Your task to perform on an android device: open app "ZOOM Cloud Meetings" (install if not already installed) Image 0: 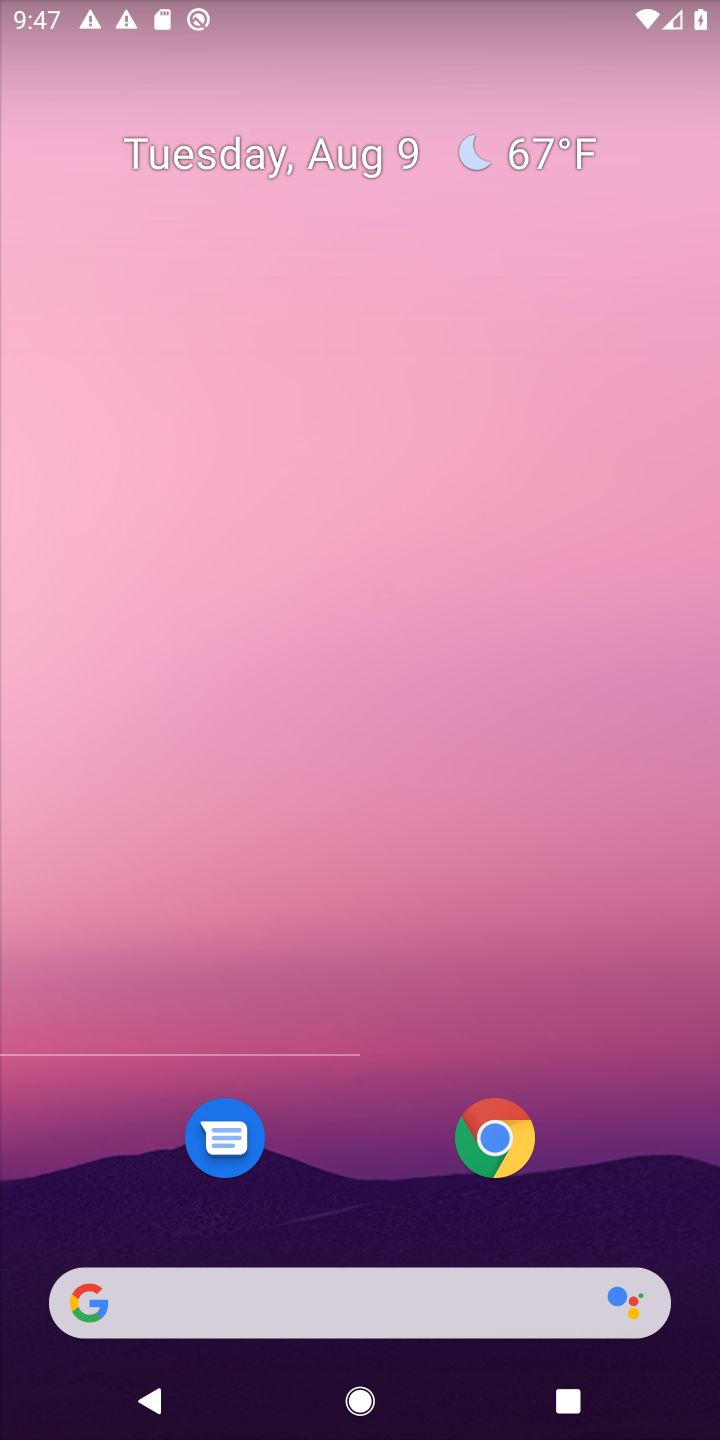
Step 0: press home button
Your task to perform on an android device: open app "ZOOM Cloud Meetings" (install if not already installed) Image 1: 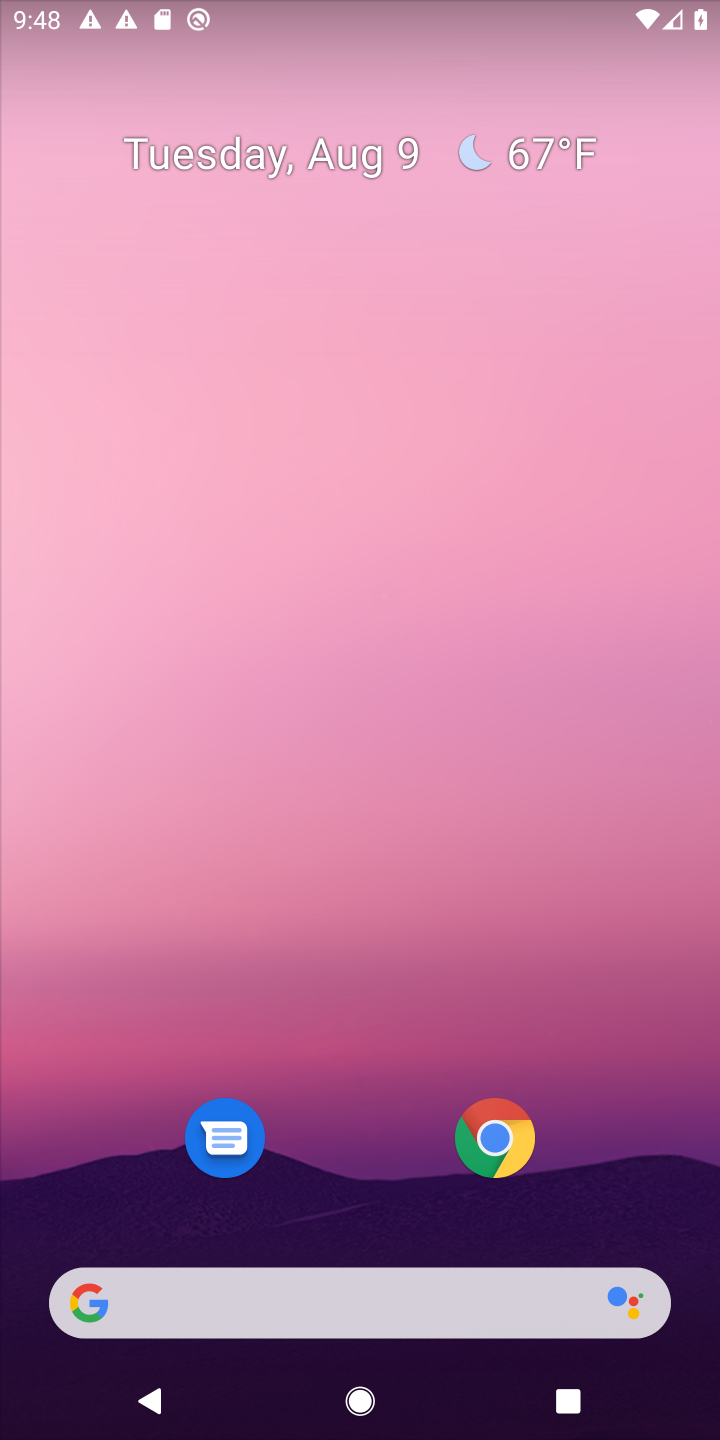
Step 1: drag from (339, 1242) to (397, 168)
Your task to perform on an android device: open app "ZOOM Cloud Meetings" (install if not already installed) Image 2: 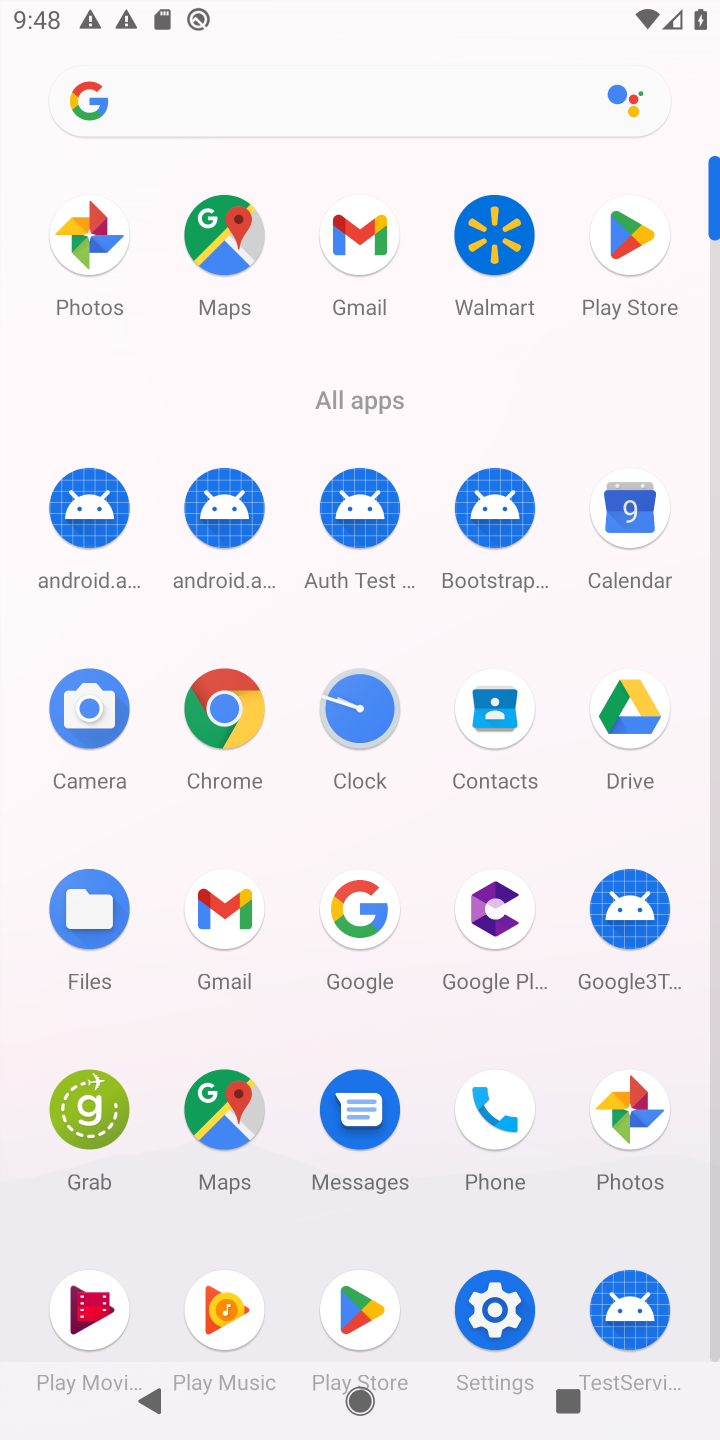
Step 2: click (629, 226)
Your task to perform on an android device: open app "ZOOM Cloud Meetings" (install if not already installed) Image 3: 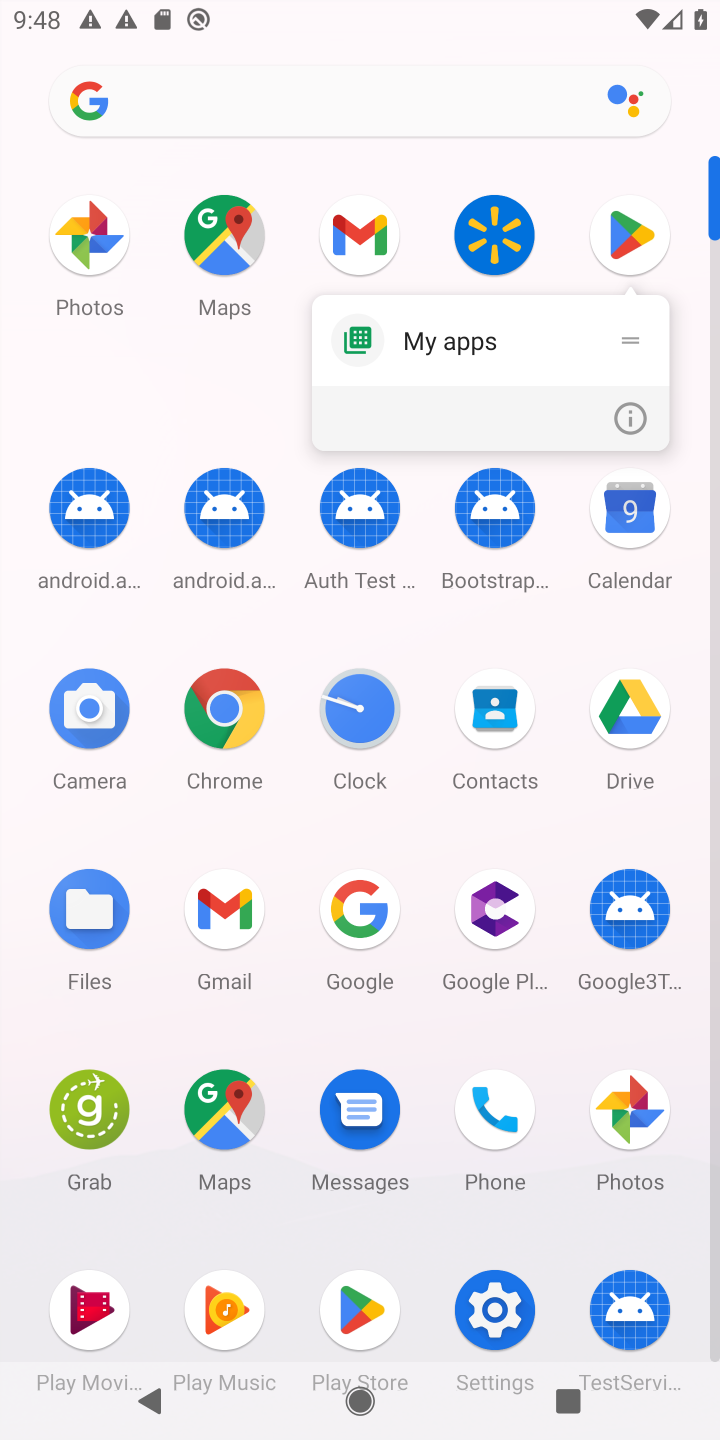
Step 3: click (630, 231)
Your task to perform on an android device: open app "ZOOM Cloud Meetings" (install if not already installed) Image 4: 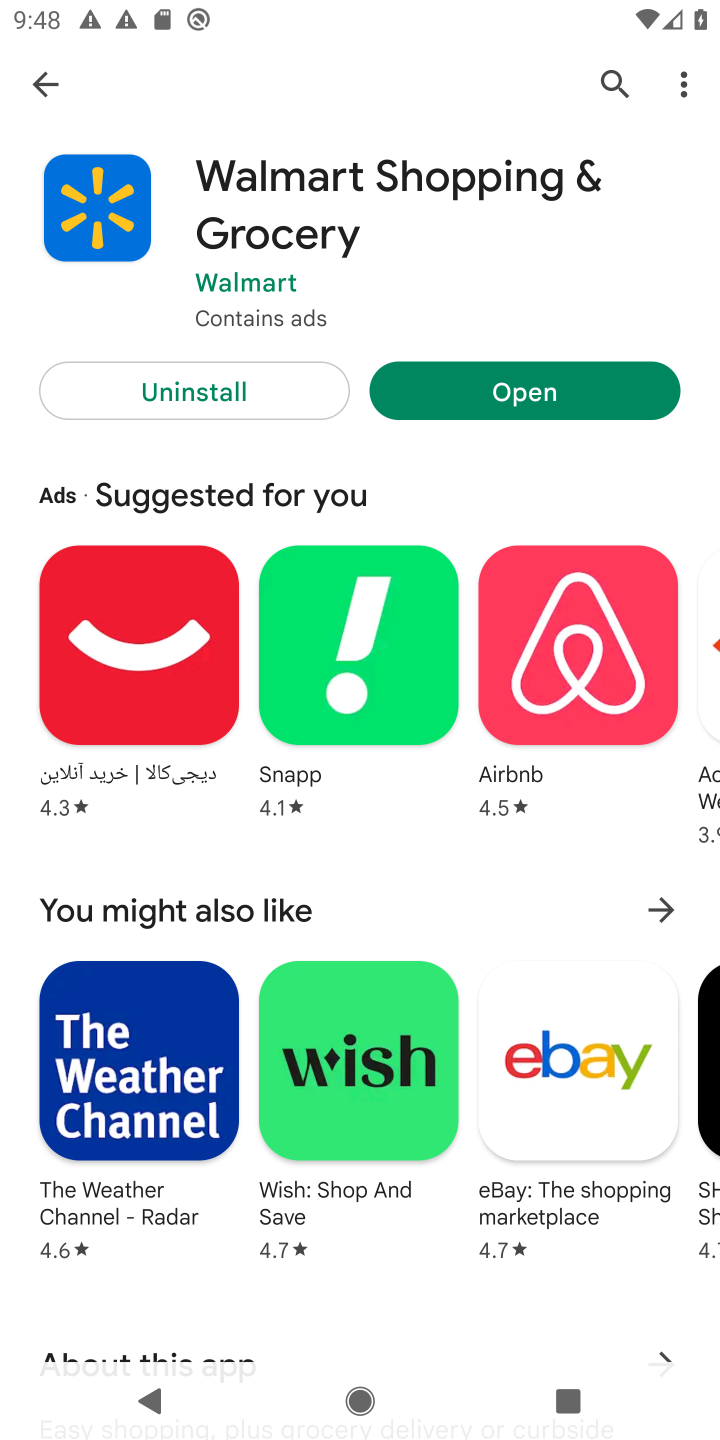
Step 4: click (591, 84)
Your task to perform on an android device: open app "ZOOM Cloud Meetings" (install if not already installed) Image 5: 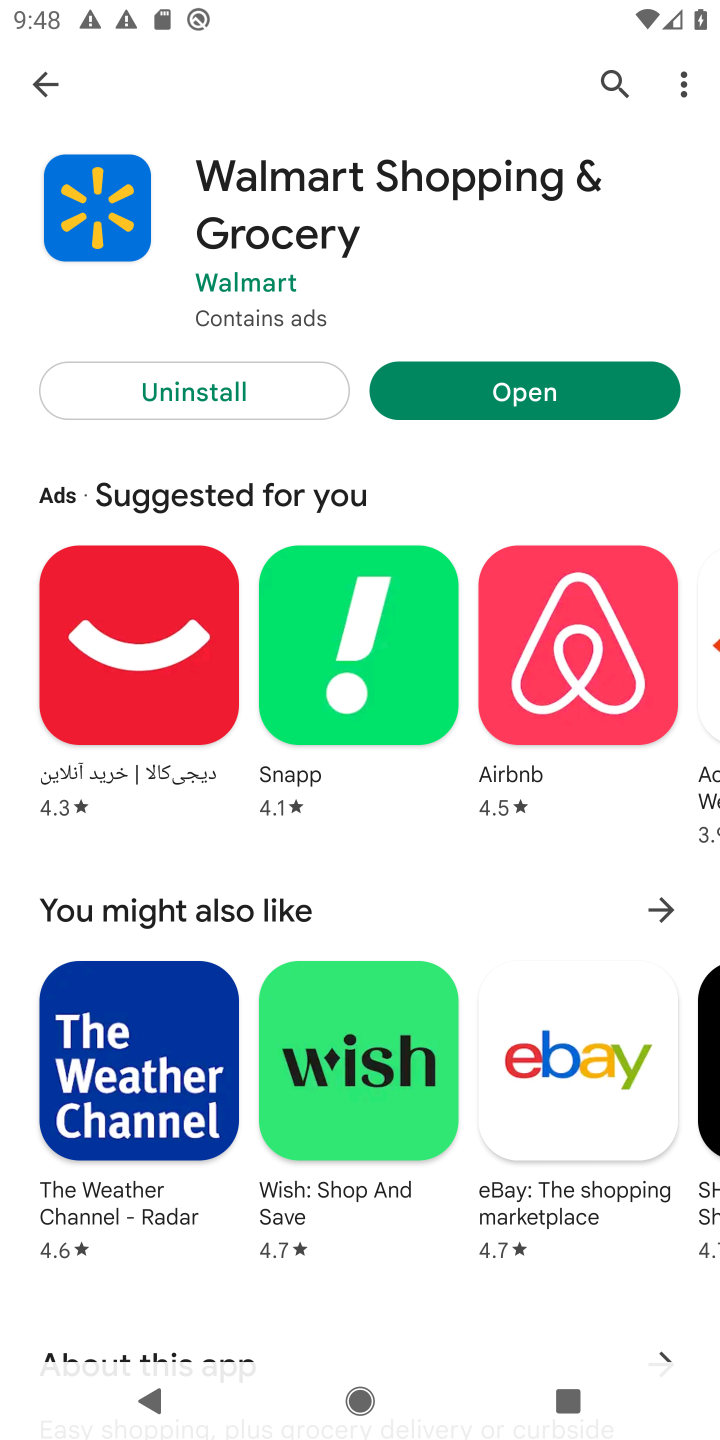
Step 5: click (602, 80)
Your task to perform on an android device: open app "ZOOM Cloud Meetings" (install if not already installed) Image 6: 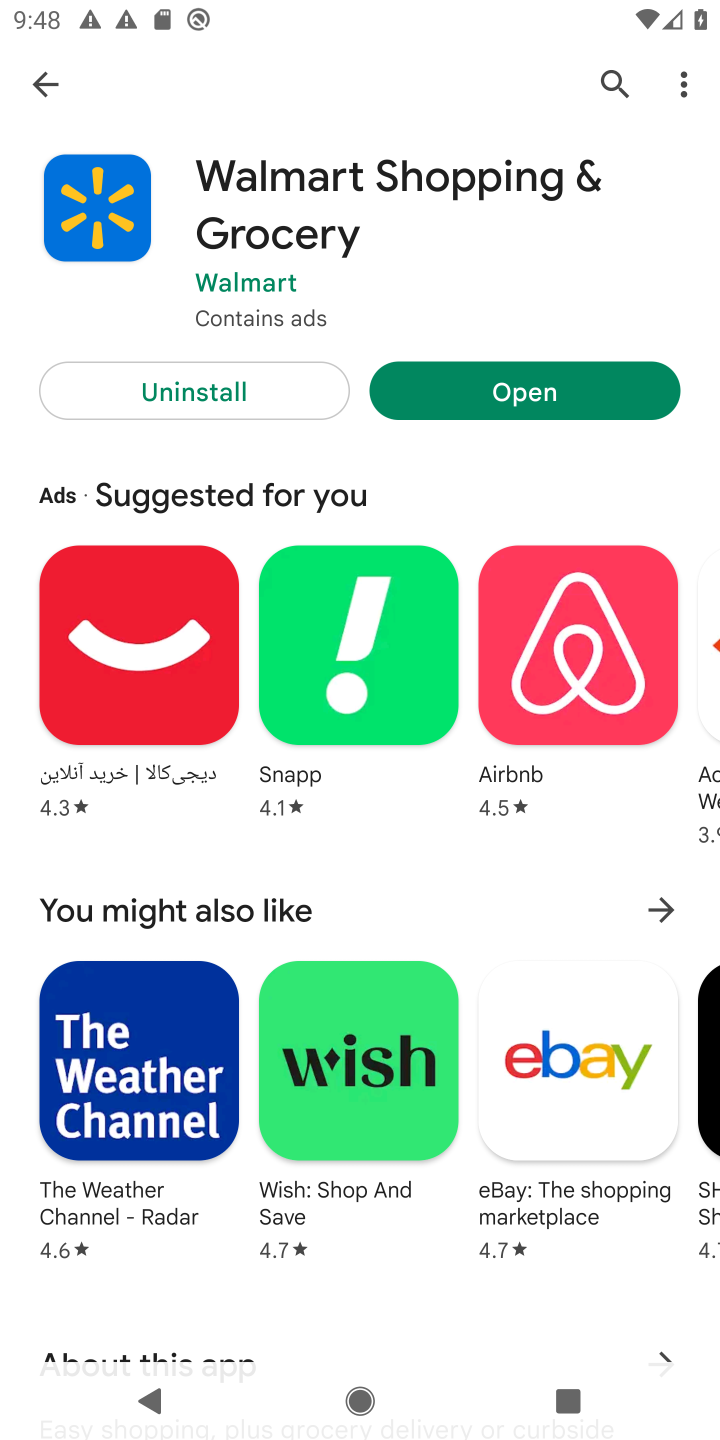
Step 6: click (614, 82)
Your task to perform on an android device: open app "ZOOM Cloud Meetings" (install if not already installed) Image 7: 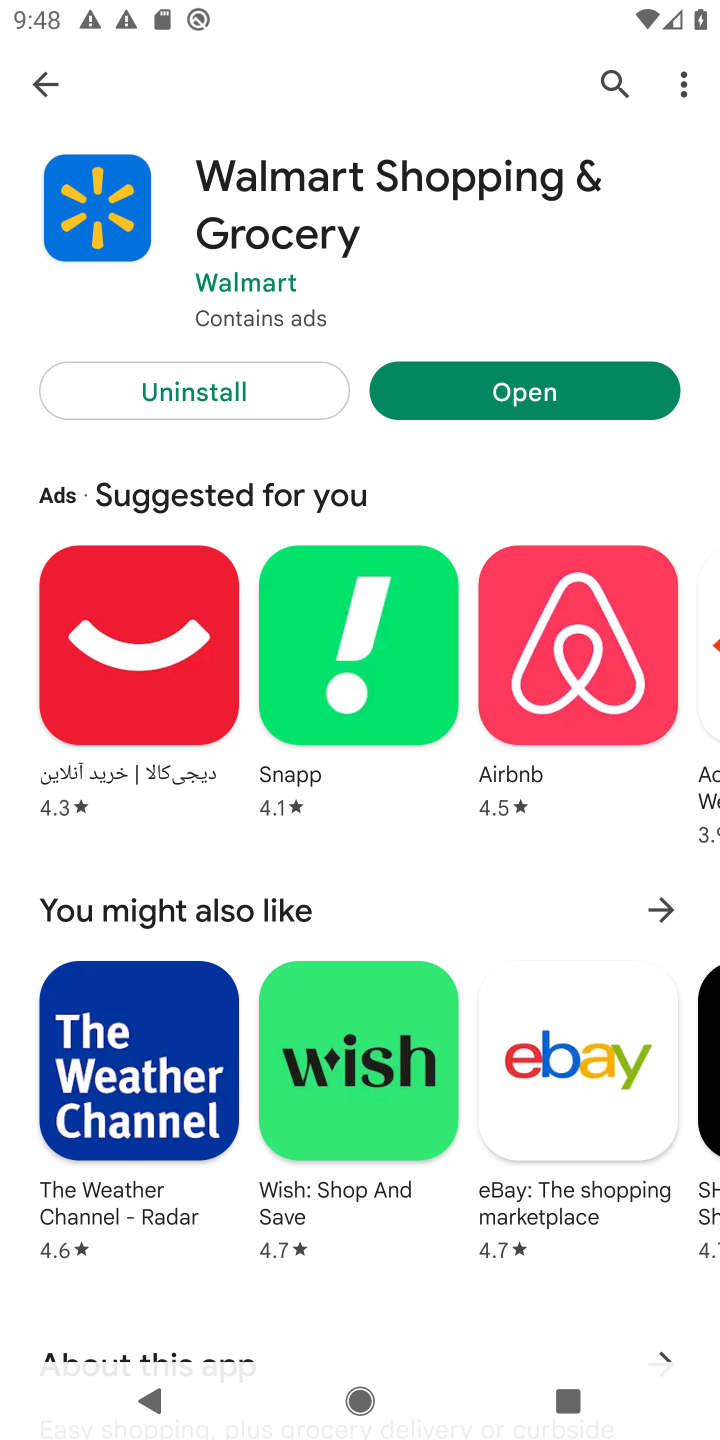
Step 7: click (600, 82)
Your task to perform on an android device: open app "ZOOM Cloud Meetings" (install if not already installed) Image 8: 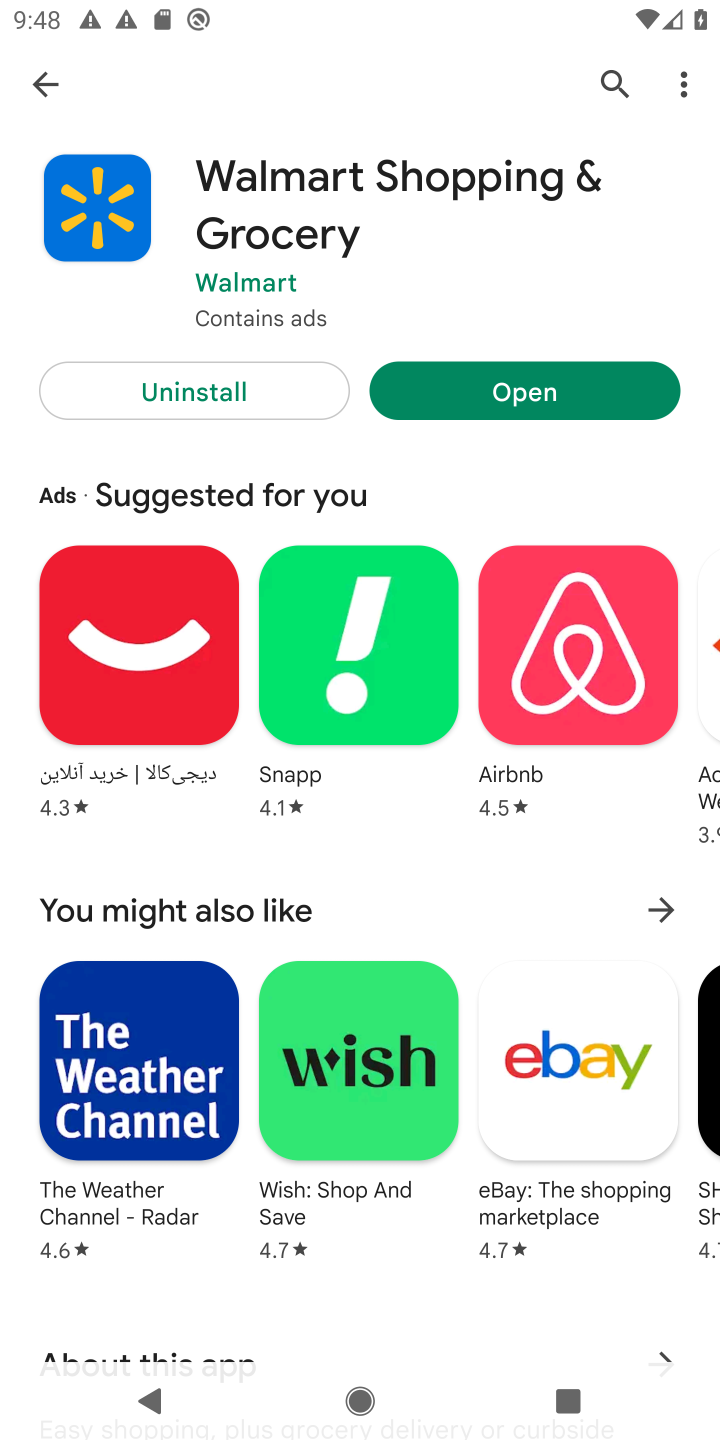
Step 8: click (44, 73)
Your task to perform on an android device: open app "ZOOM Cloud Meetings" (install if not already installed) Image 9: 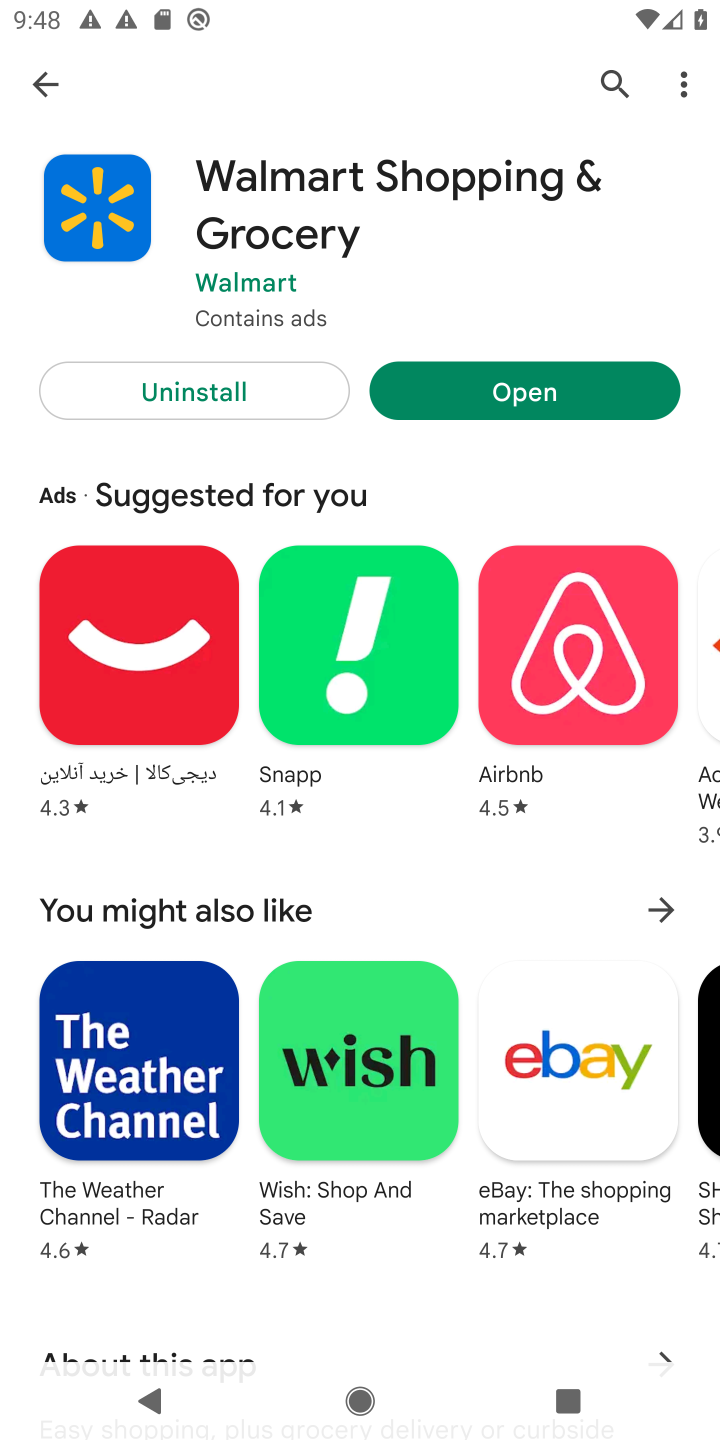
Step 9: click (45, 91)
Your task to perform on an android device: open app "ZOOM Cloud Meetings" (install if not already installed) Image 10: 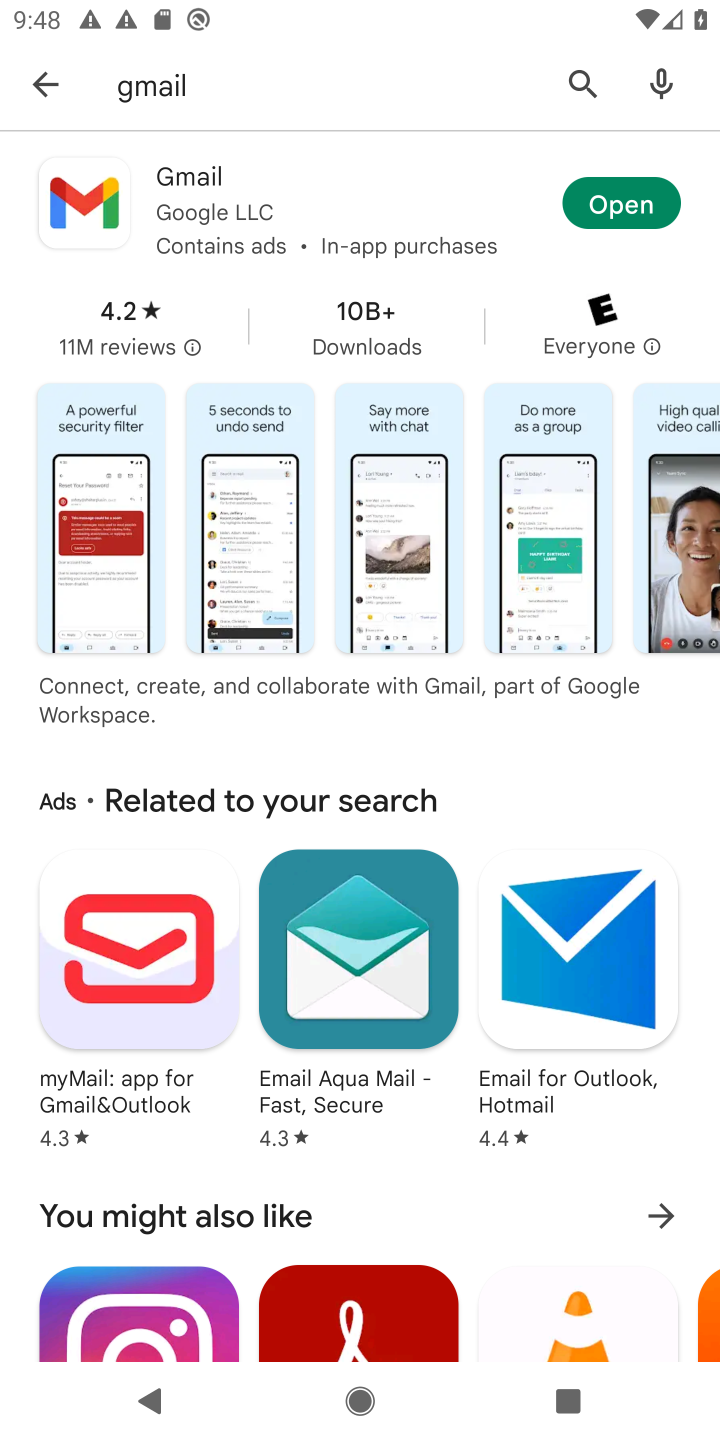
Step 10: click (575, 83)
Your task to perform on an android device: open app "ZOOM Cloud Meetings" (install if not already installed) Image 11: 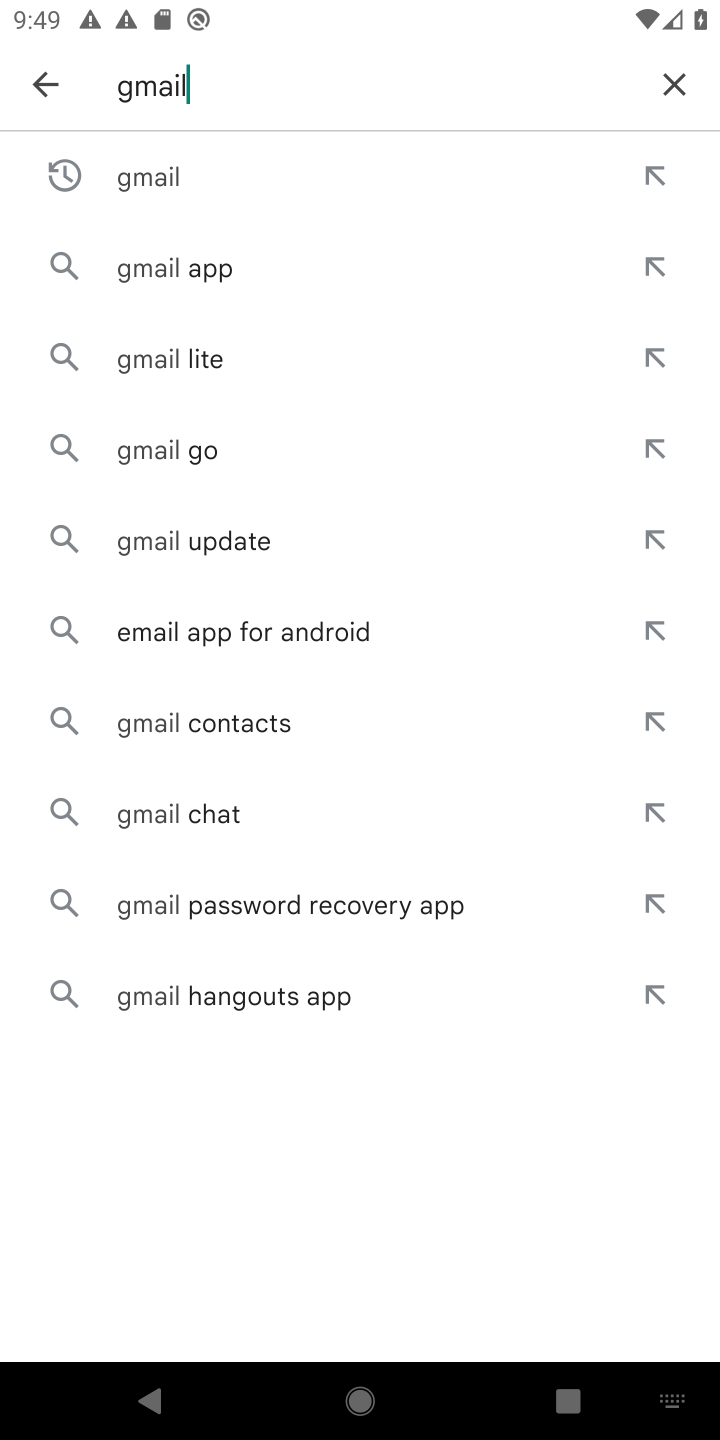
Step 11: click (675, 85)
Your task to perform on an android device: open app "ZOOM Cloud Meetings" (install if not already installed) Image 12: 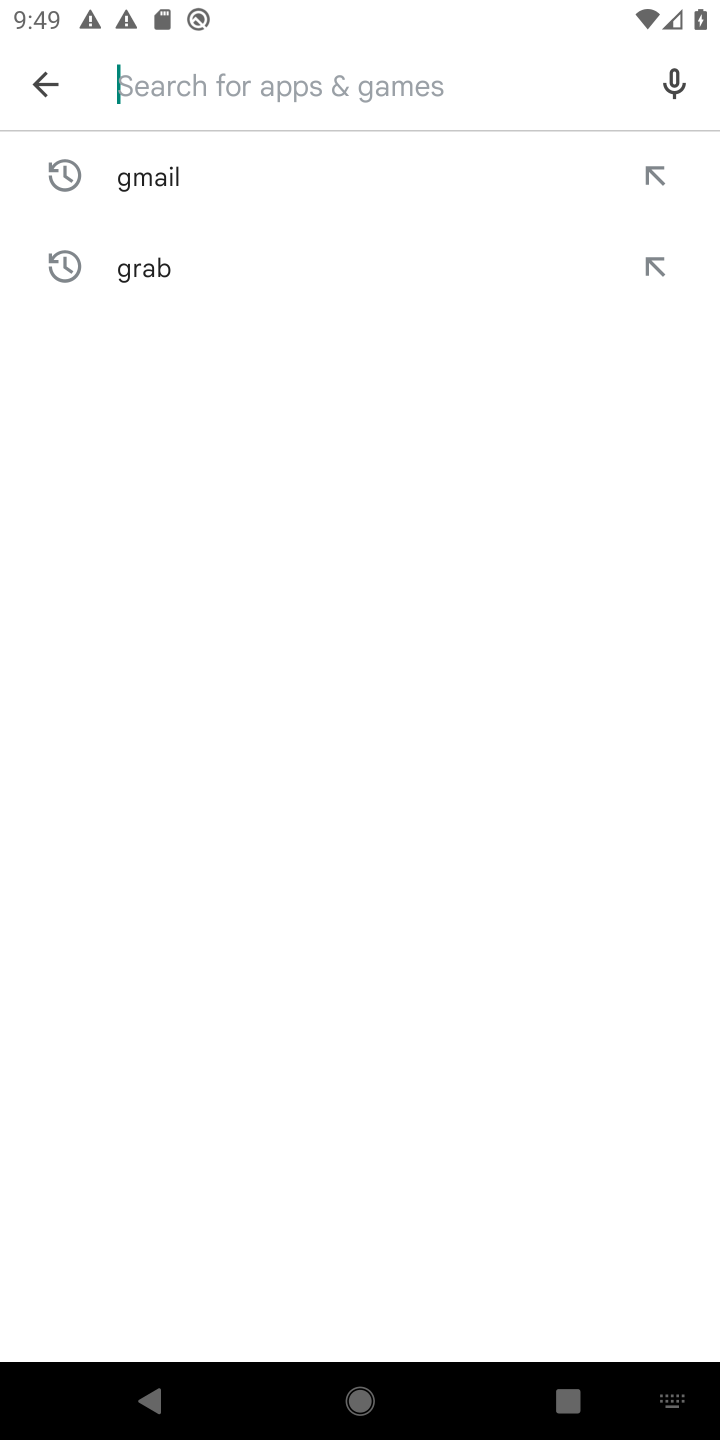
Step 12: type "ZOOM Cloud Meetings"
Your task to perform on an android device: open app "ZOOM Cloud Meetings" (install if not already installed) Image 13: 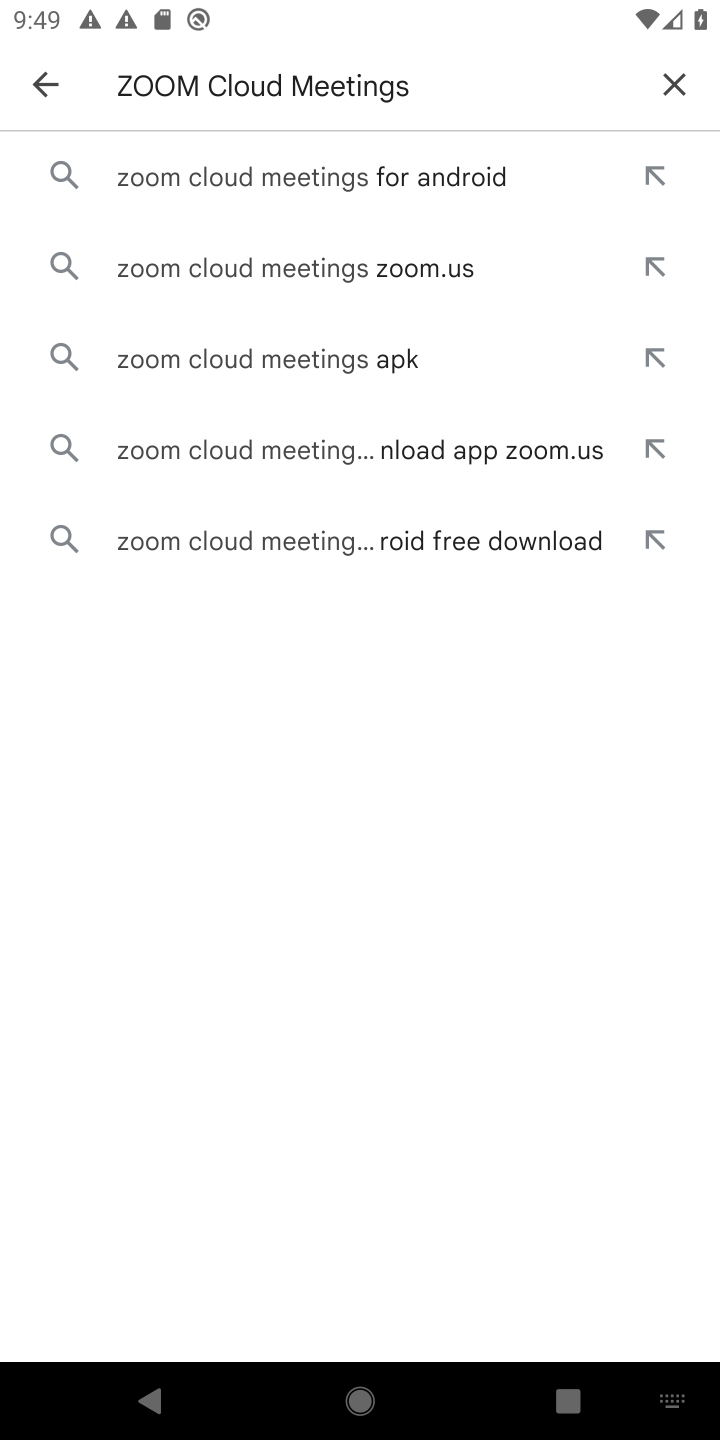
Step 13: click (371, 177)
Your task to perform on an android device: open app "ZOOM Cloud Meetings" (install if not already installed) Image 14: 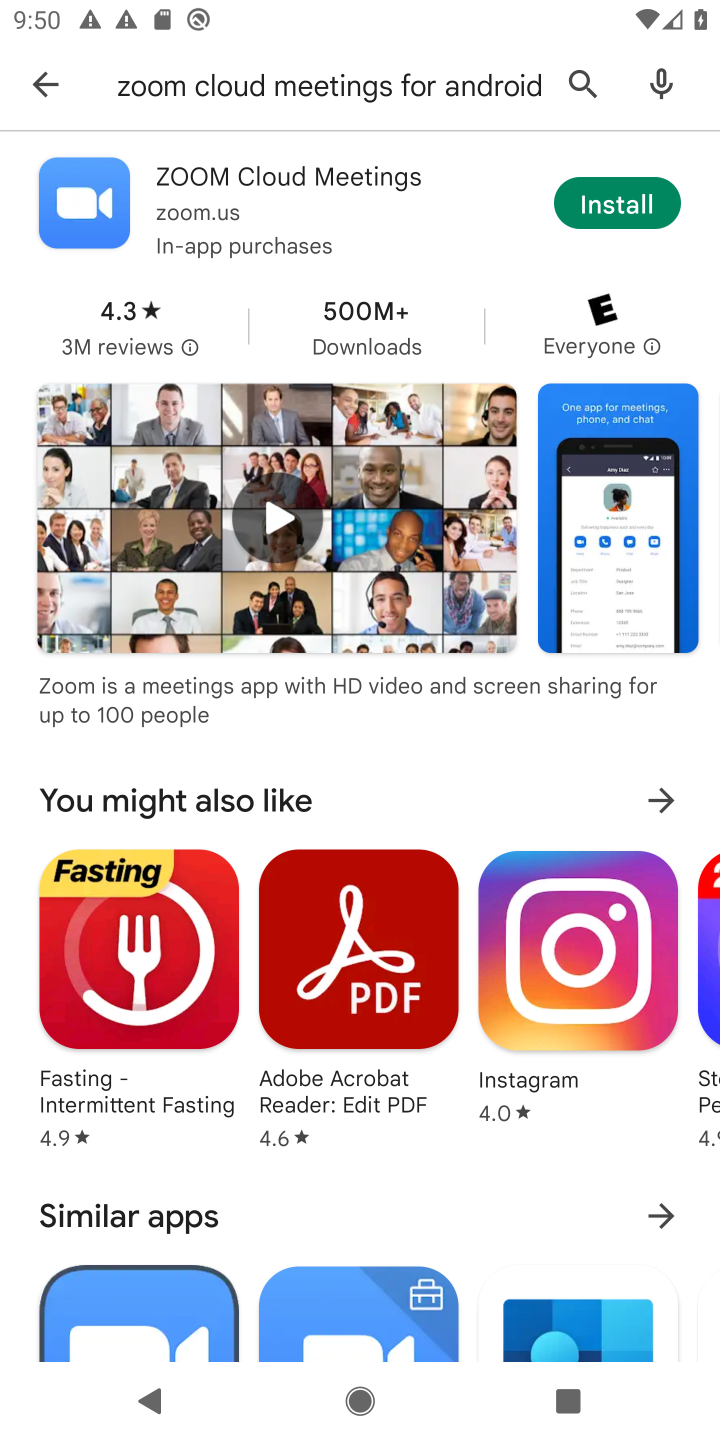
Step 14: click (621, 192)
Your task to perform on an android device: open app "ZOOM Cloud Meetings" (install if not already installed) Image 15: 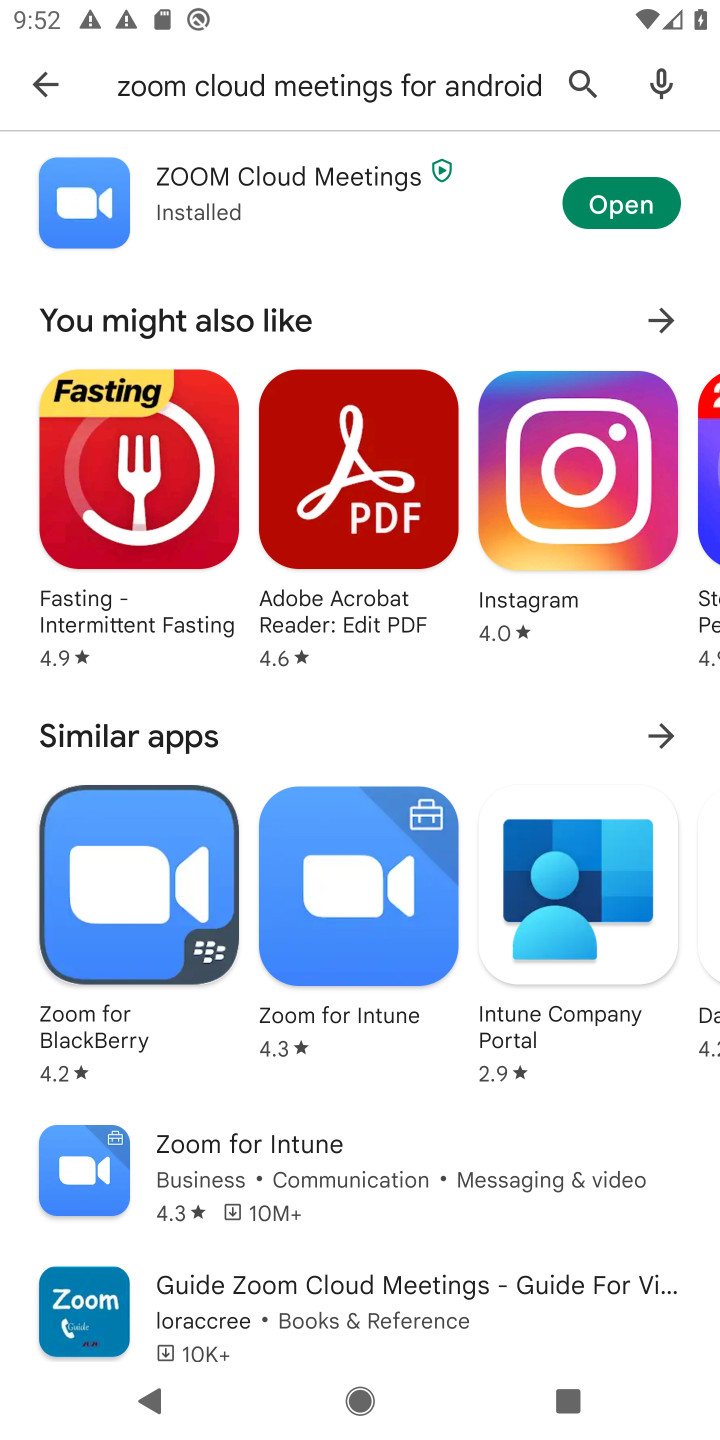
Step 15: click (609, 191)
Your task to perform on an android device: open app "ZOOM Cloud Meetings" (install if not already installed) Image 16: 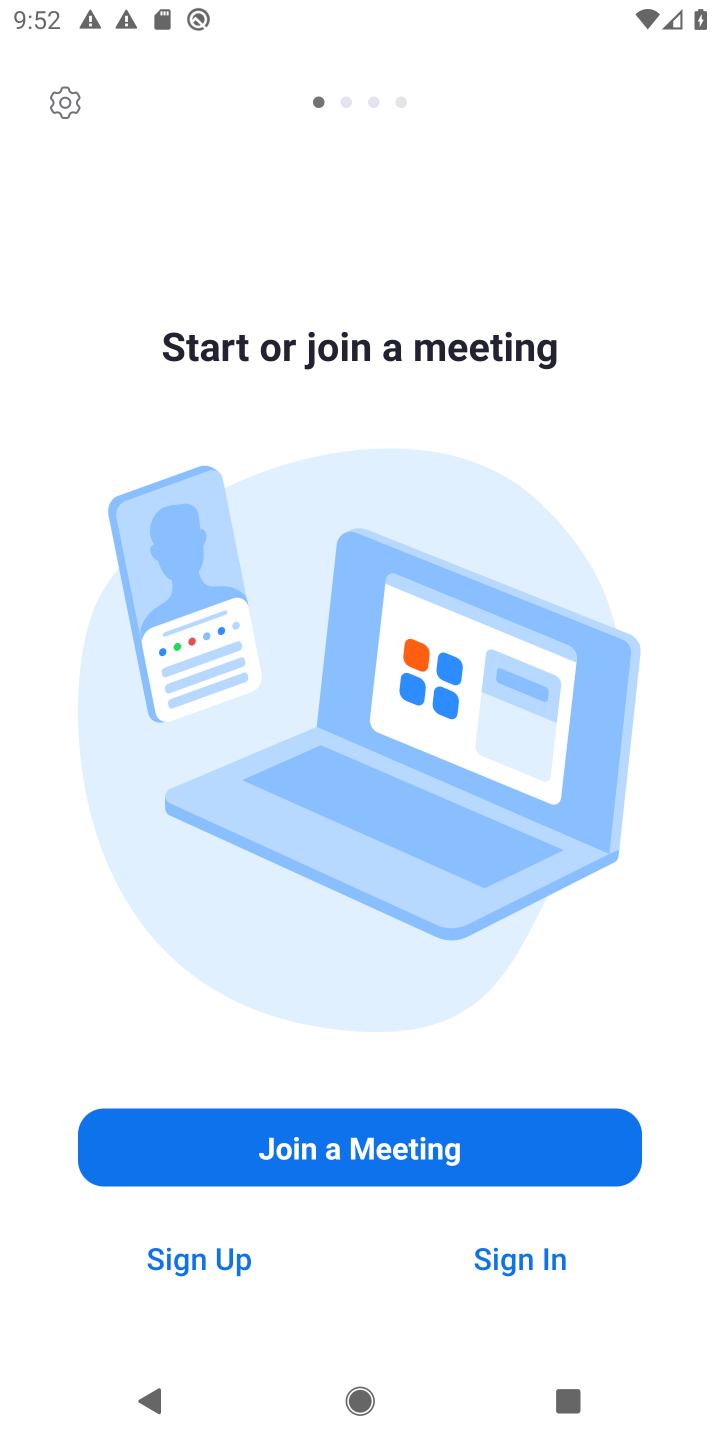
Step 16: click (360, 1152)
Your task to perform on an android device: open app "ZOOM Cloud Meetings" (install if not already installed) Image 17: 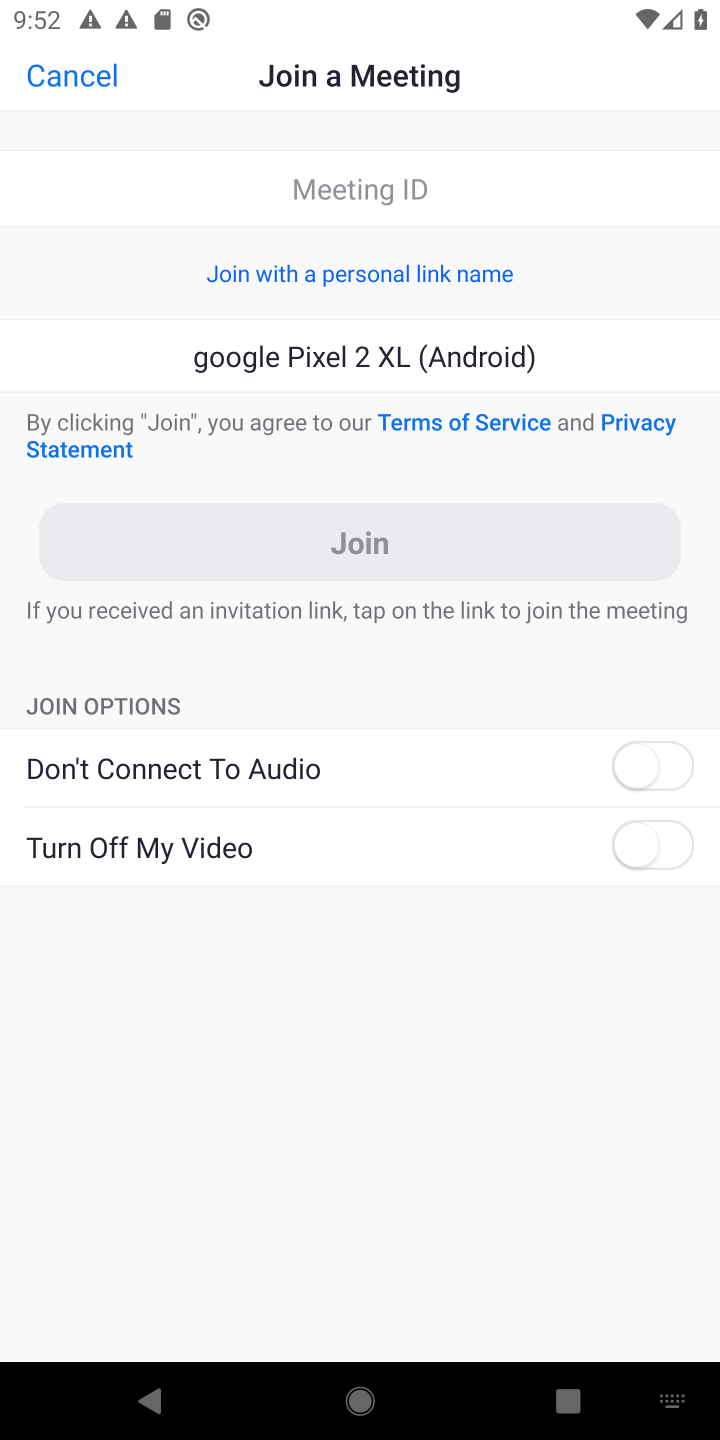
Step 17: task complete